Your task to perform on an android device: Open Reddit.com Image 0: 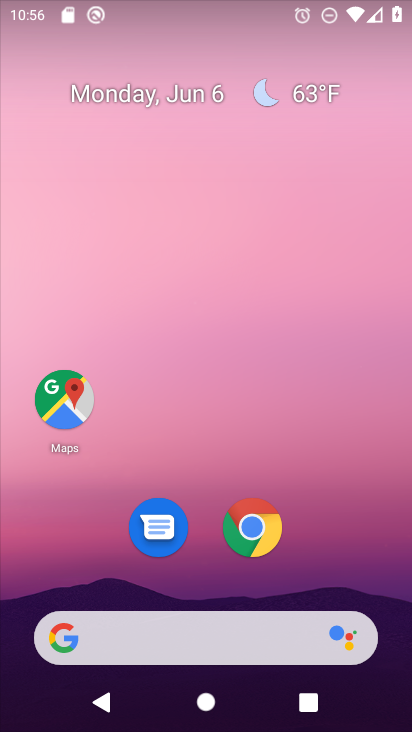
Step 0: drag from (356, 563) to (375, 177)
Your task to perform on an android device: Open Reddit.com Image 1: 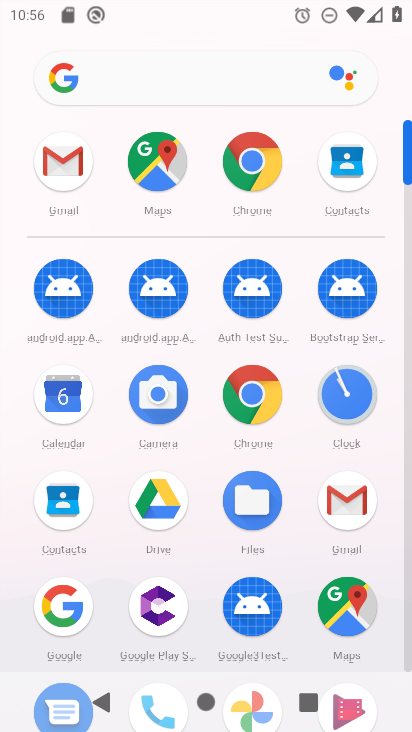
Step 1: click (272, 402)
Your task to perform on an android device: Open Reddit.com Image 2: 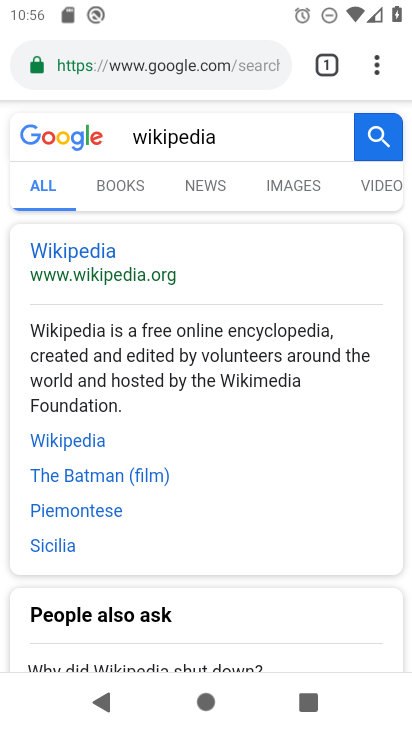
Step 2: click (230, 78)
Your task to perform on an android device: Open Reddit.com Image 3: 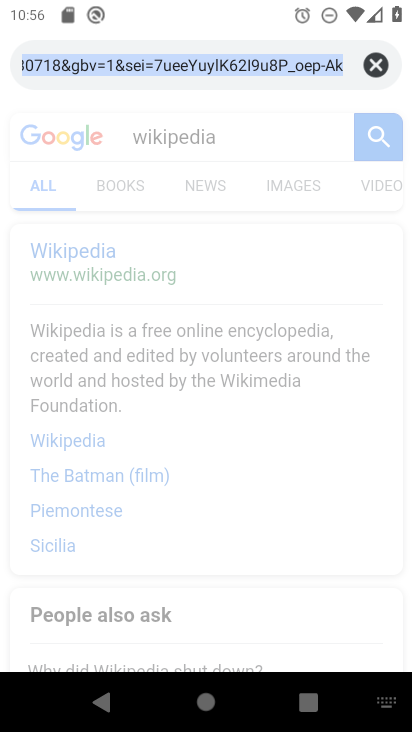
Step 3: click (377, 71)
Your task to perform on an android device: Open Reddit.com Image 4: 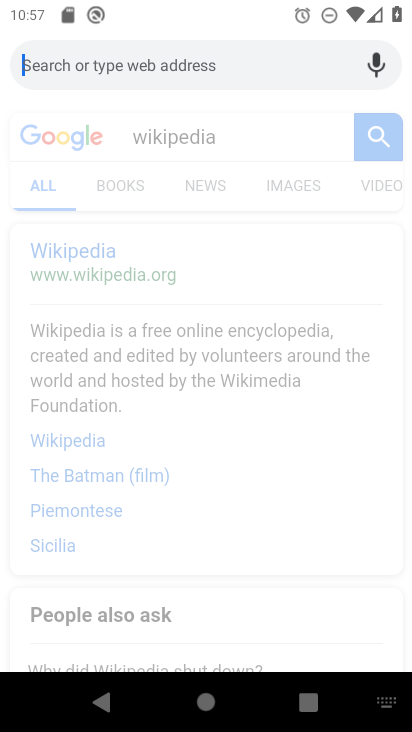
Step 4: type "reddit.com"
Your task to perform on an android device: Open Reddit.com Image 5: 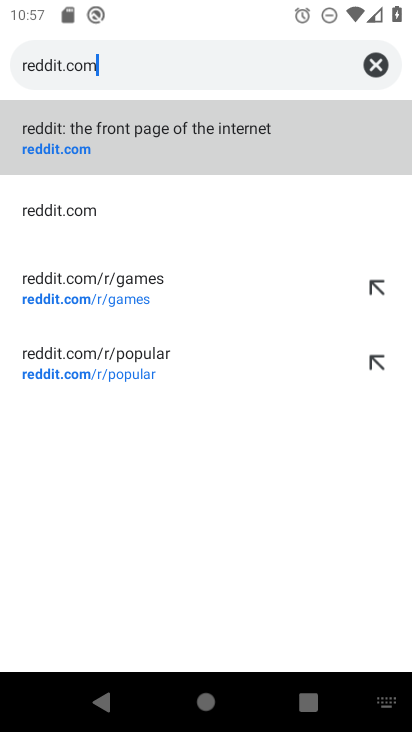
Step 5: click (227, 149)
Your task to perform on an android device: Open Reddit.com Image 6: 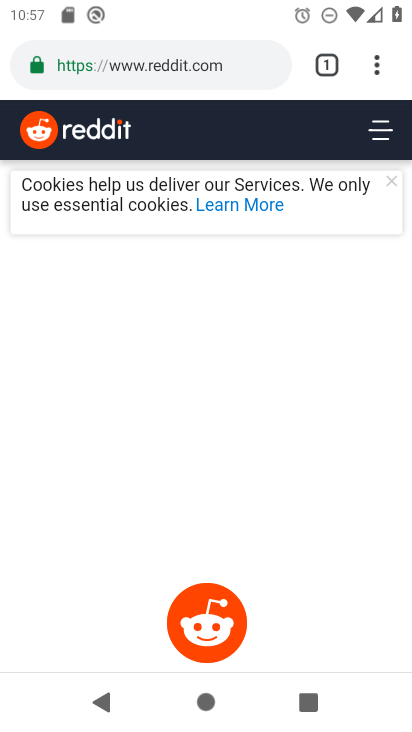
Step 6: task complete